Your task to perform on an android device: Go to network settings Image 0: 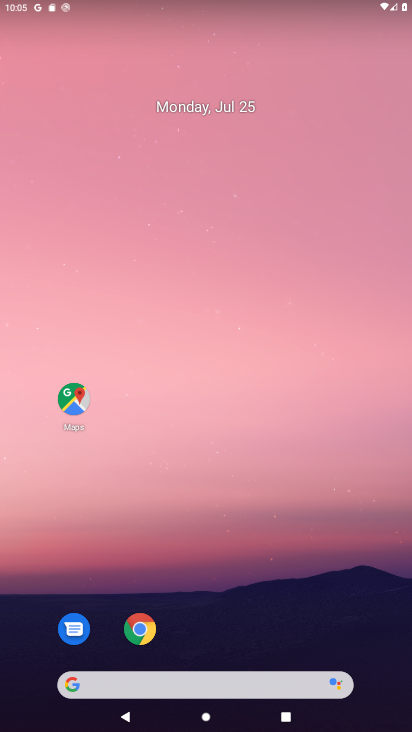
Step 0: drag from (182, 8) to (253, 579)
Your task to perform on an android device: Go to network settings Image 1: 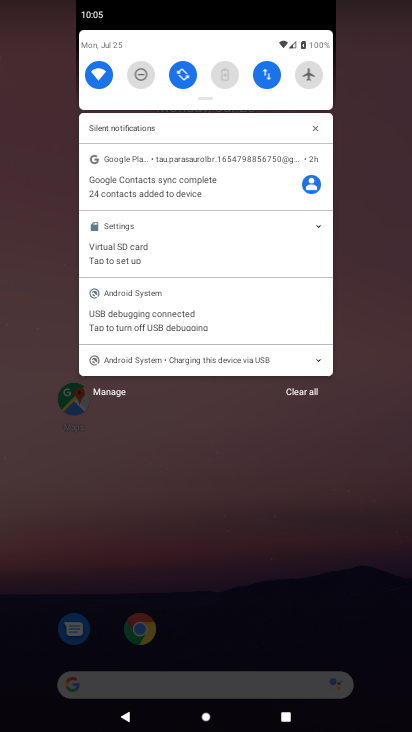
Step 1: click (270, 74)
Your task to perform on an android device: Go to network settings Image 2: 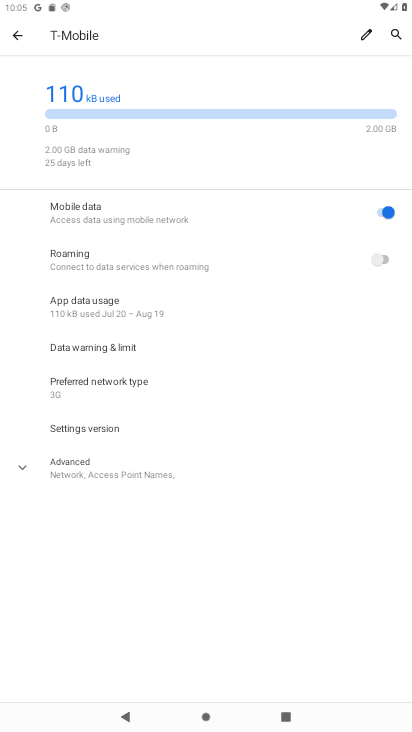
Step 2: task complete